Your task to perform on an android device: Open Yahoo.com Image 0: 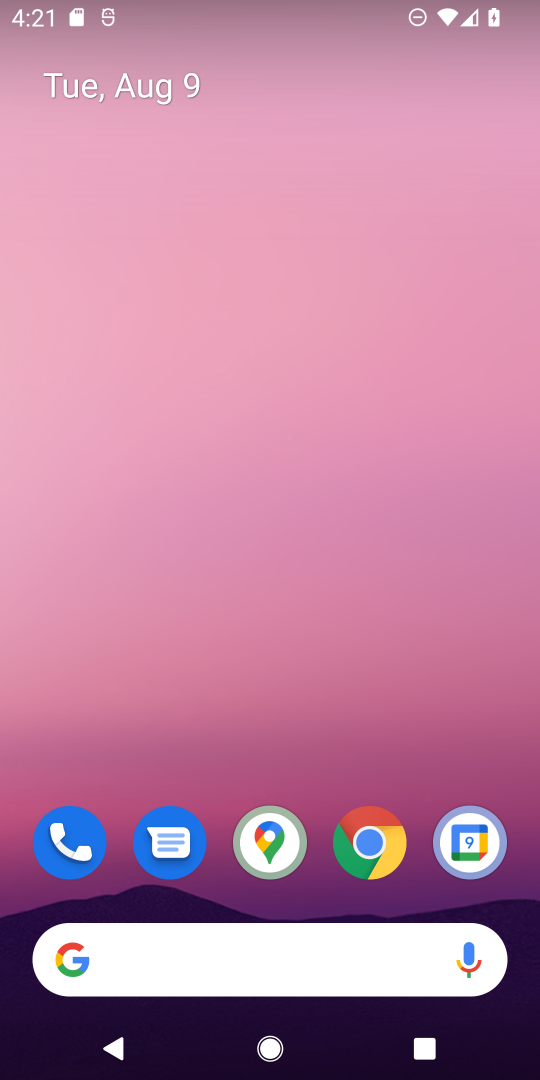
Step 0: drag from (305, 977) to (413, 71)
Your task to perform on an android device: Open Yahoo.com Image 1: 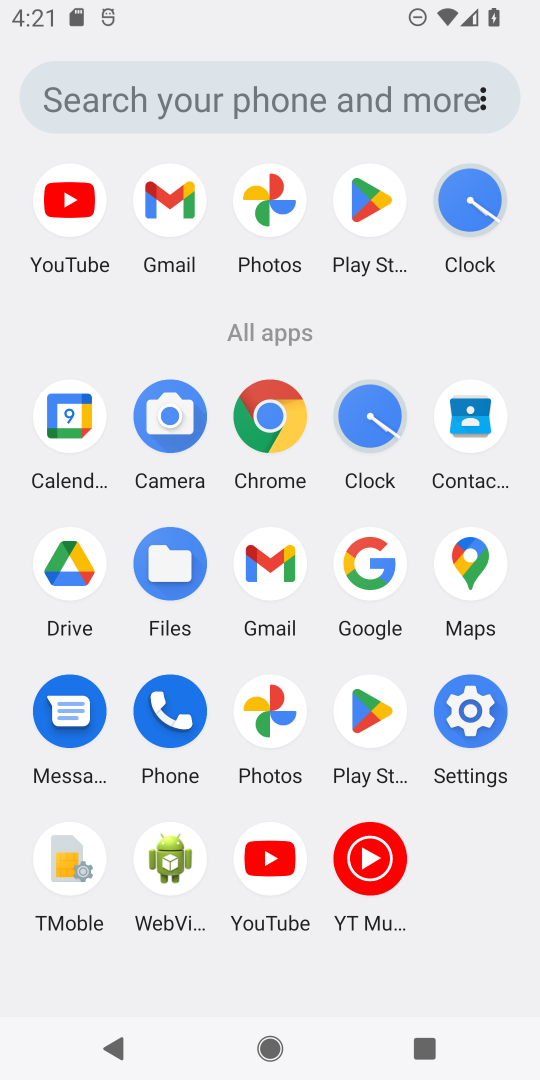
Step 1: click (282, 407)
Your task to perform on an android device: Open Yahoo.com Image 2: 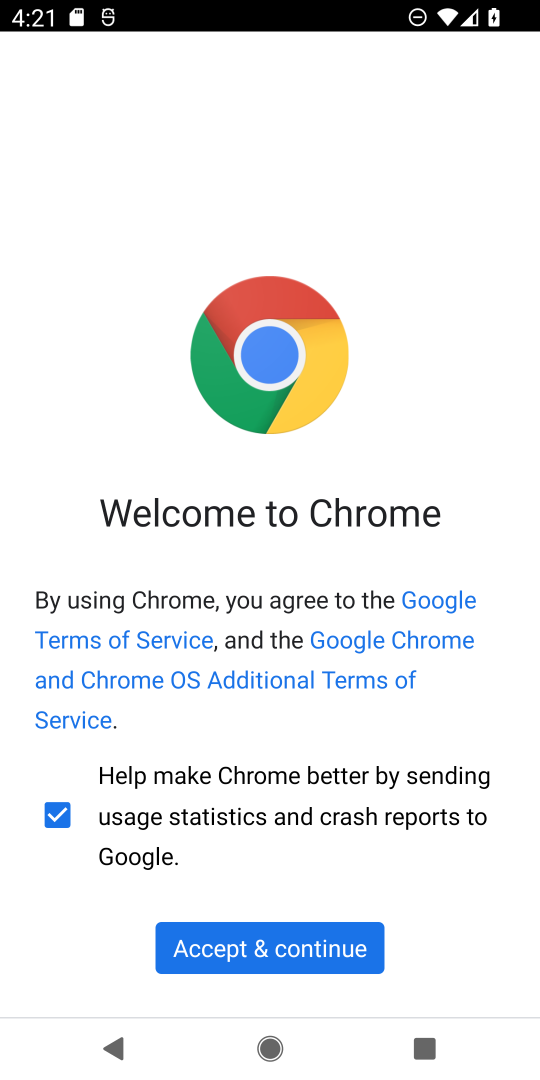
Step 2: click (326, 941)
Your task to perform on an android device: Open Yahoo.com Image 3: 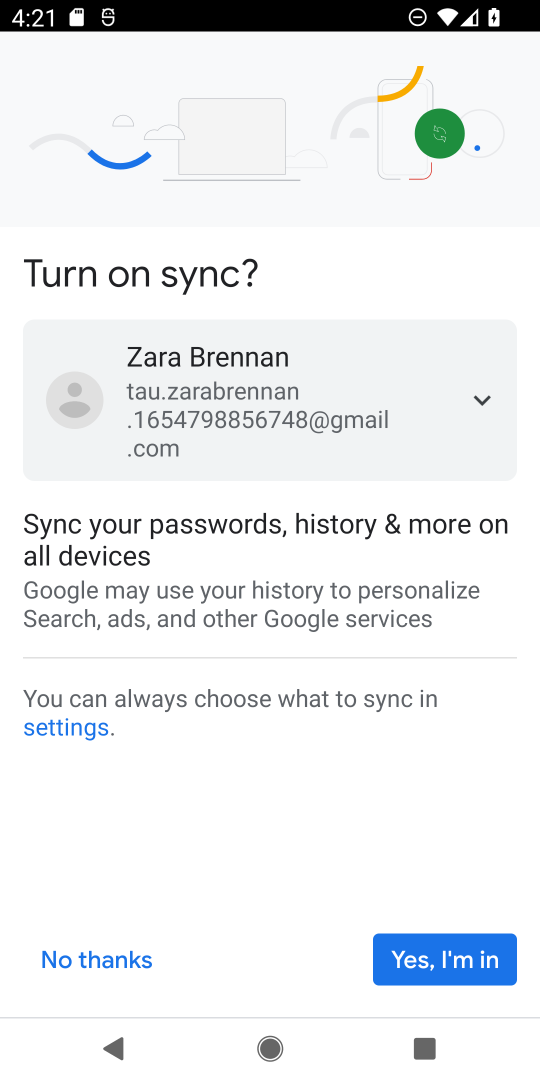
Step 3: click (83, 953)
Your task to perform on an android device: Open Yahoo.com Image 4: 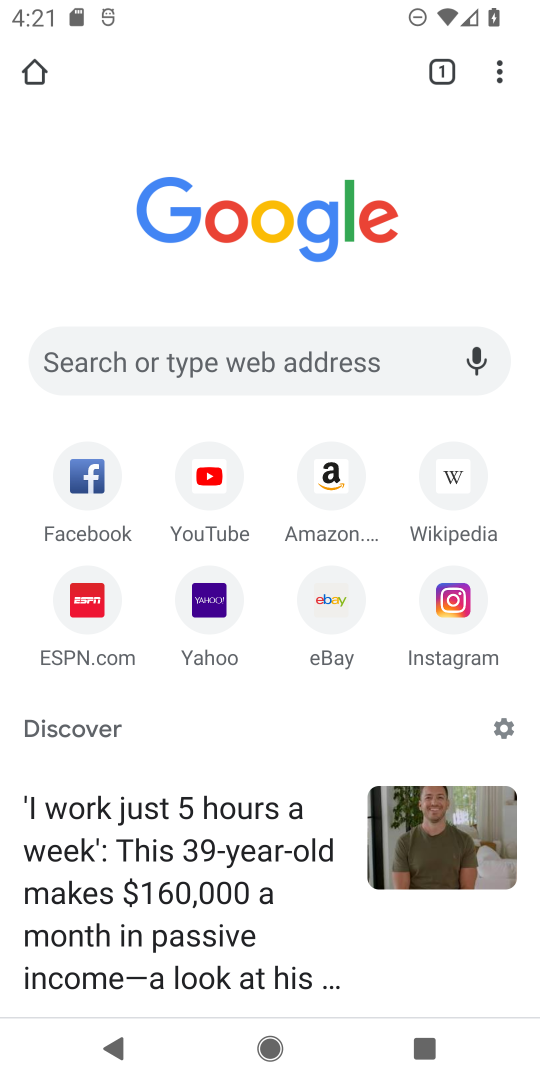
Step 4: click (222, 598)
Your task to perform on an android device: Open Yahoo.com Image 5: 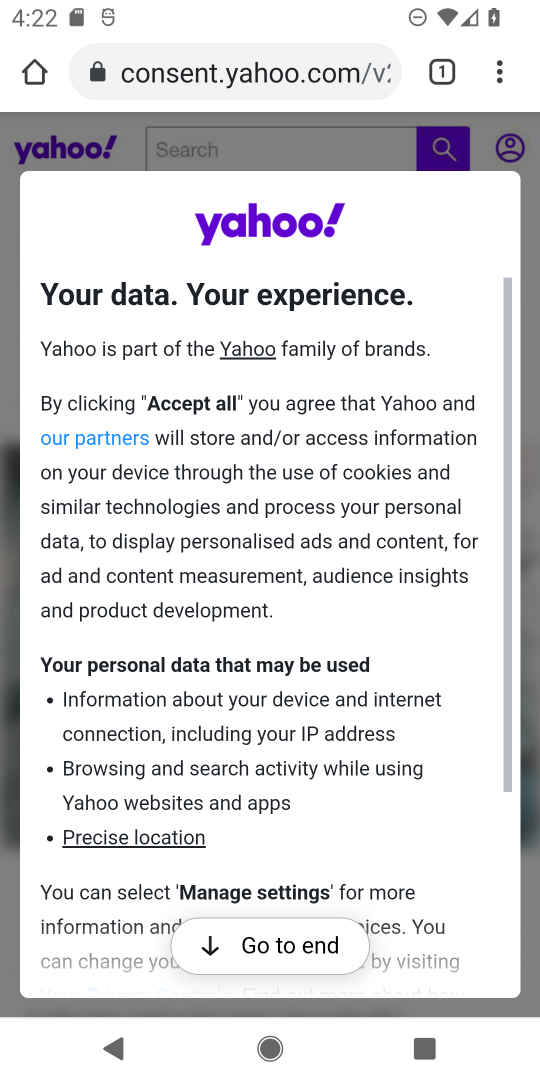
Step 5: task complete